Your task to perform on an android device: toggle show notifications on the lock screen Image 0: 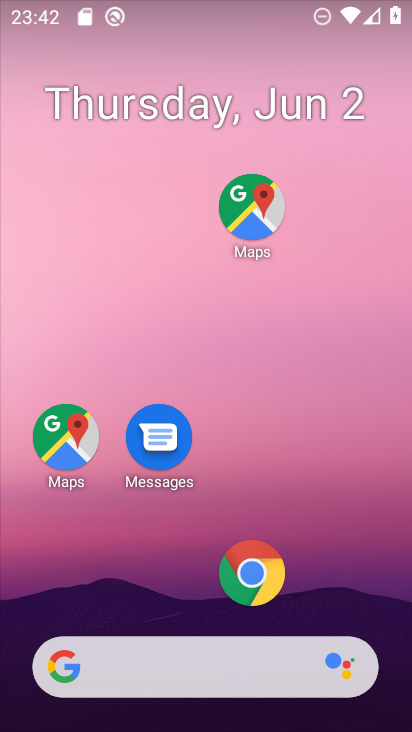
Step 0: drag from (312, 558) to (366, 291)
Your task to perform on an android device: toggle show notifications on the lock screen Image 1: 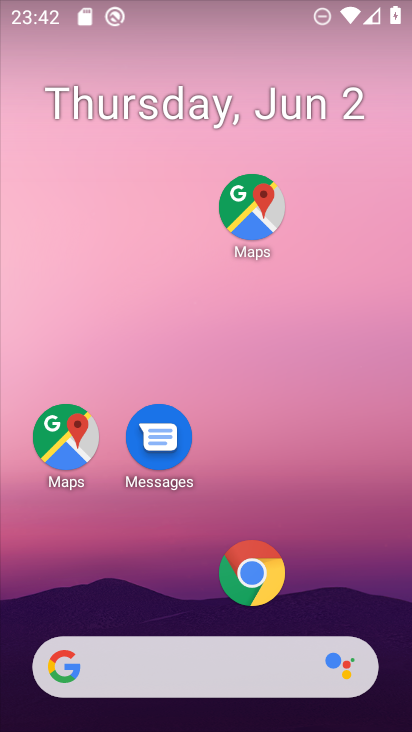
Step 1: drag from (333, 527) to (343, 215)
Your task to perform on an android device: toggle show notifications on the lock screen Image 2: 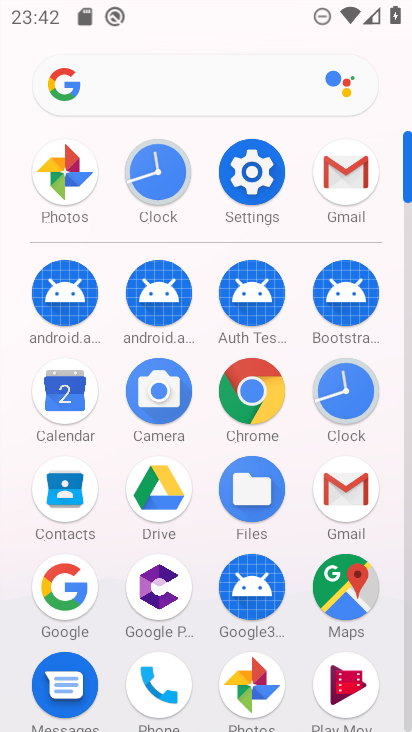
Step 2: click (224, 169)
Your task to perform on an android device: toggle show notifications on the lock screen Image 3: 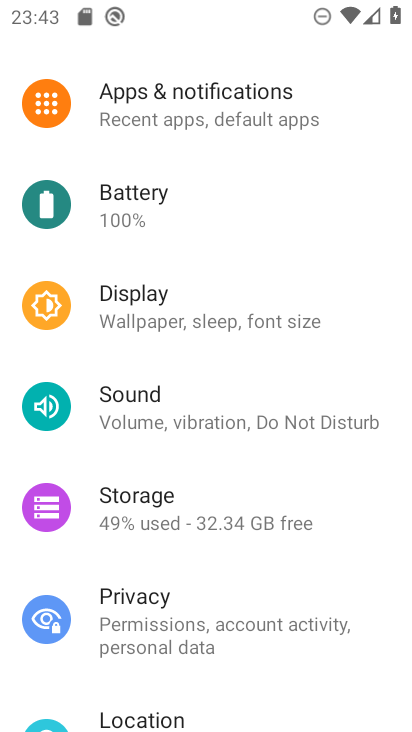
Step 3: click (205, 100)
Your task to perform on an android device: toggle show notifications on the lock screen Image 4: 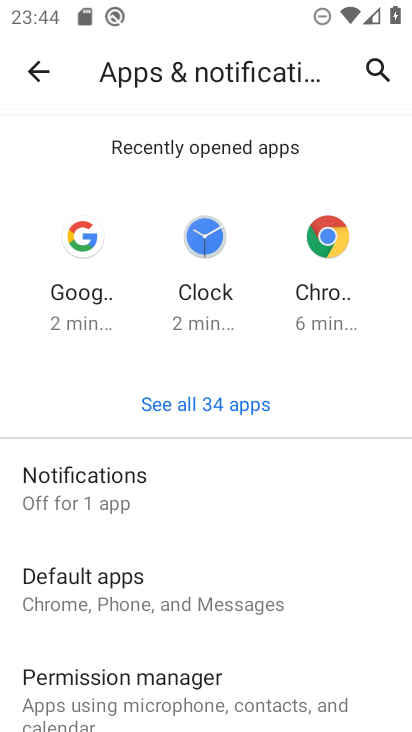
Step 4: click (117, 499)
Your task to perform on an android device: toggle show notifications on the lock screen Image 5: 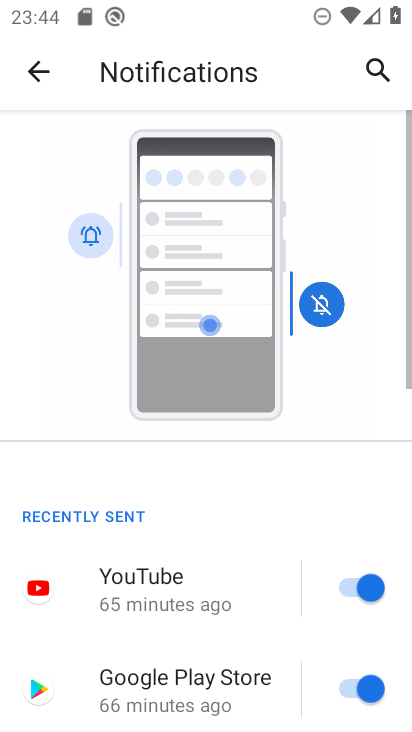
Step 5: drag from (182, 528) to (199, 293)
Your task to perform on an android device: toggle show notifications on the lock screen Image 6: 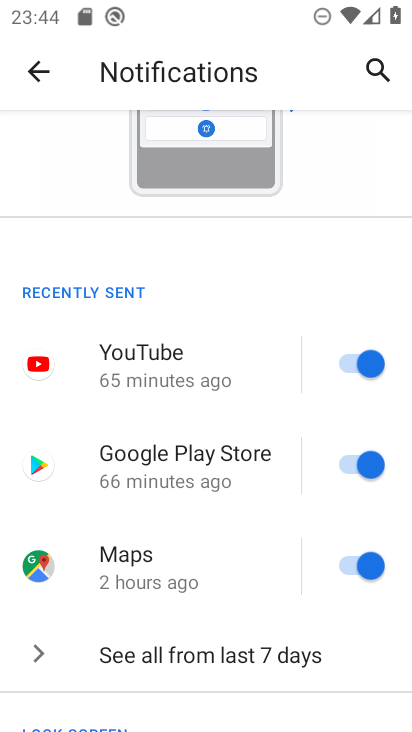
Step 6: drag from (196, 504) to (194, 256)
Your task to perform on an android device: toggle show notifications on the lock screen Image 7: 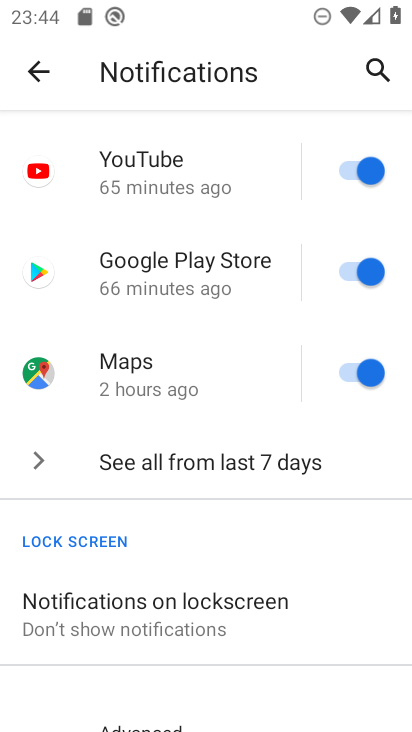
Step 7: click (208, 605)
Your task to perform on an android device: toggle show notifications on the lock screen Image 8: 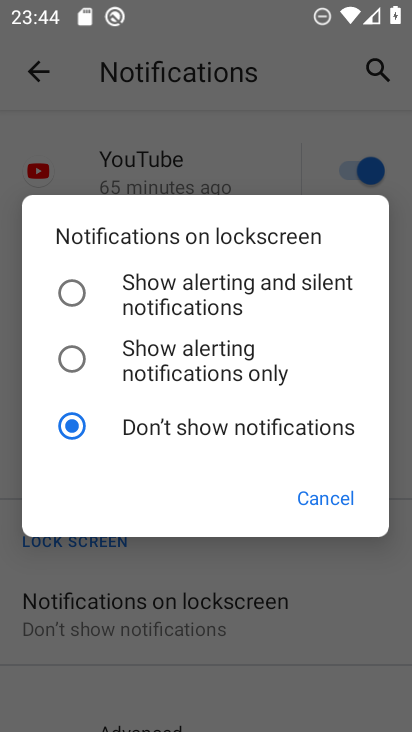
Step 8: click (116, 304)
Your task to perform on an android device: toggle show notifications on the lock screen Image 9: 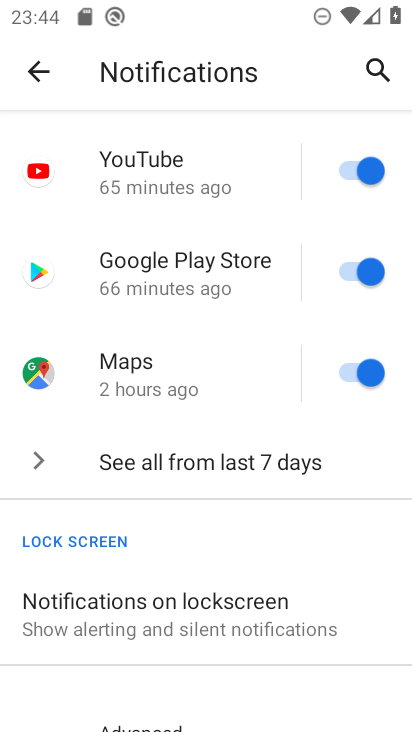
Step 9: task complete